Your task to perform on an android device: What's the weather? Image 0: 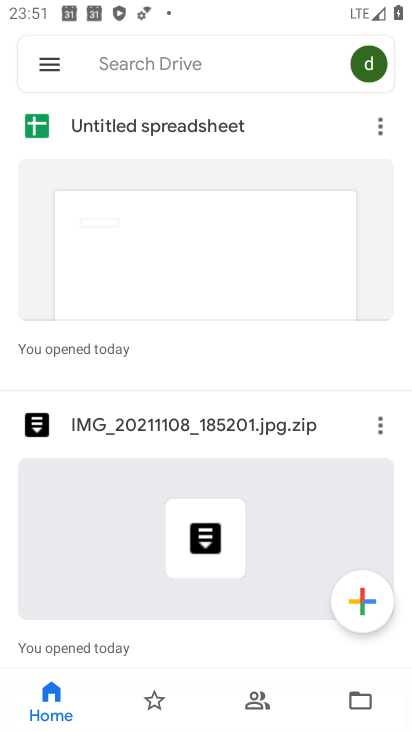
Step 0: press home button
Your task to perform on an android device: What's the weather? Image 1: 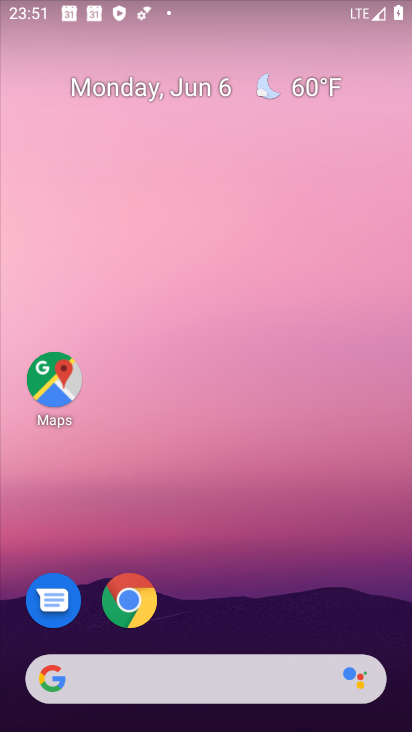
Step 1: drag from (241, 727) to (241, 41)
Your task to perform on an android device: What's the weather? Image 2: 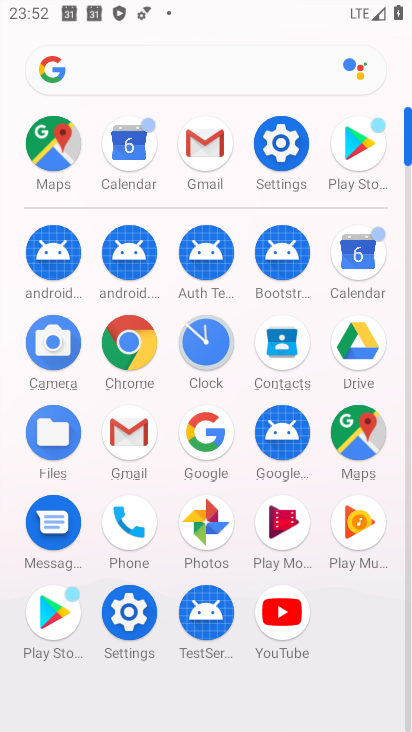
Step 2: click (206, 437)
Your task to perform on an android device: What's the weather? Image 3: 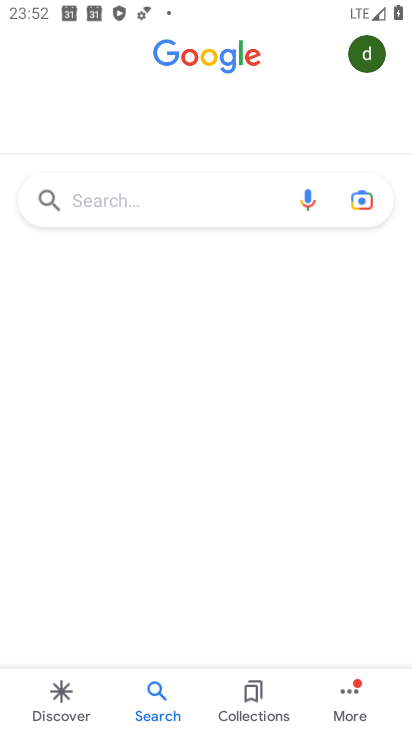
Step 3: click (97, 209)
Your task to perform on an android device: What's the weather? Image 4: 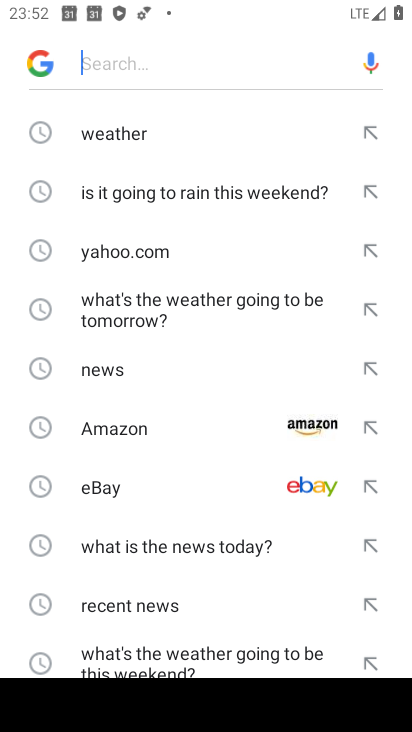
Step 4: click (96, 139)
Your task to perform on an android device: What's the weather? Image 5: 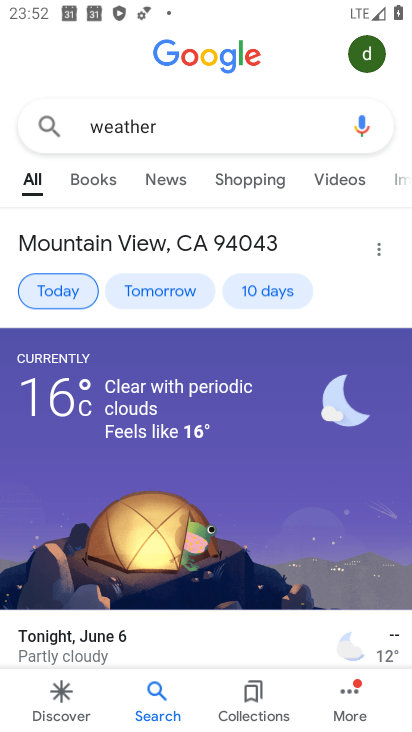
Step 5: click (51, 287)
Your task to perform on an android device: What's the weather? Image 6: 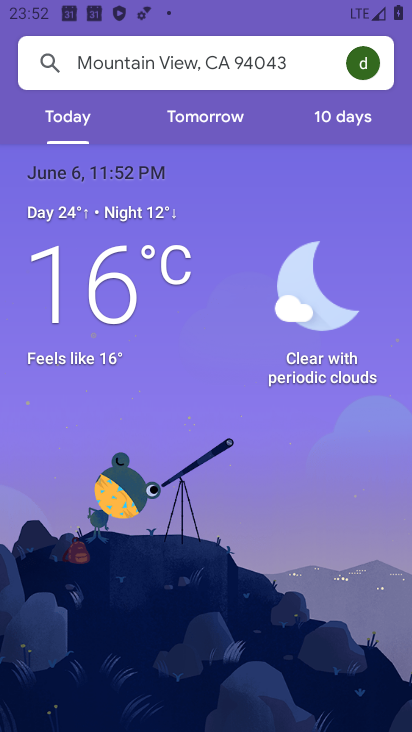
Step 6: task complete